Your task to perform on an android device: Open Google Chrome Image 0: 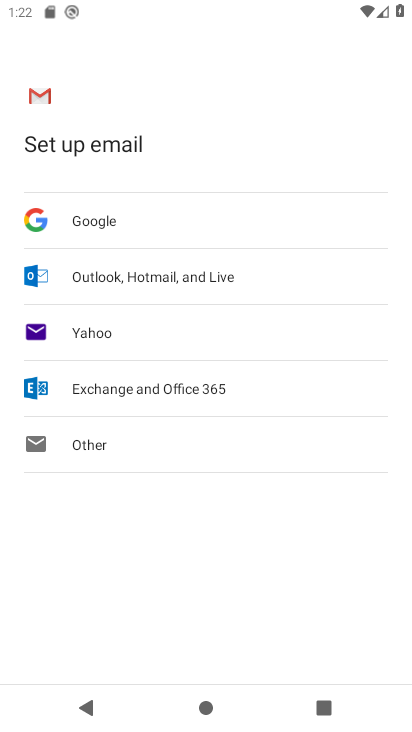
Step 0: press home button
Your task to perform on an android device: Open Google Chrome Image 1: 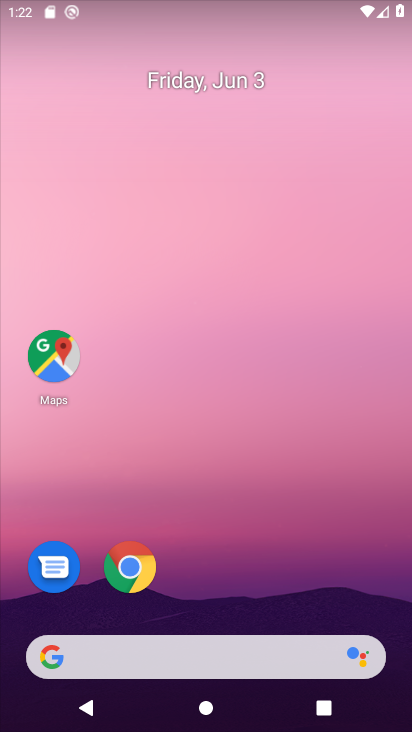
Step 1: drag from (229, 582) to (207, 104)
Your task to perform on an android device: Open Google Chrome Image 2: 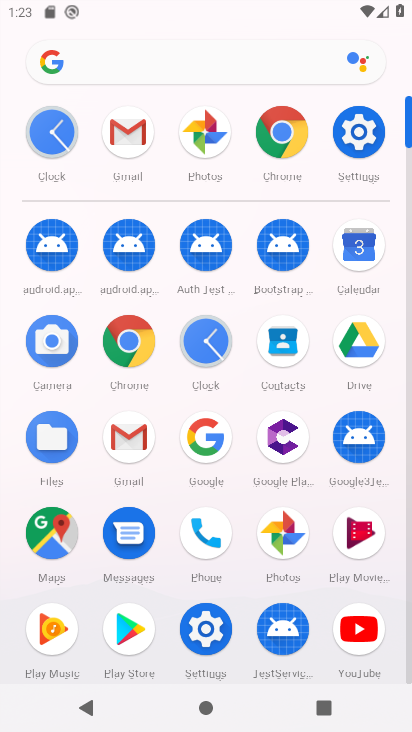
Step 2: click (205, 432)
Your task to perform on an android device: Open Google Chrome Image 3: 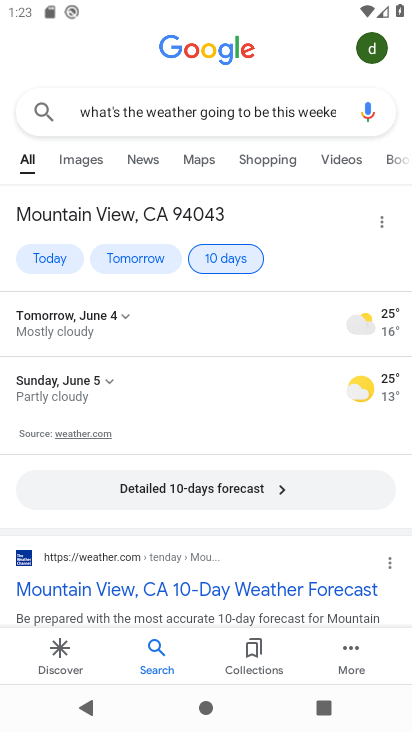
Step 3: task complete